Your task to perform on an android device: stop showing notifications on the lock screen Image 0: 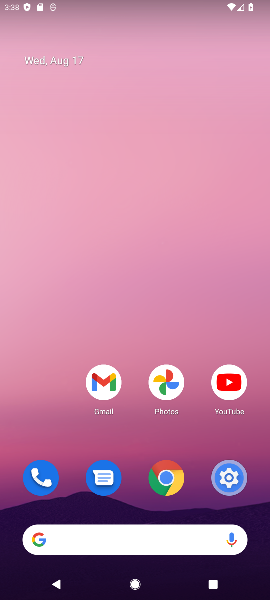
Step 0: drag from (132, 443) to (177, 20)
Your task to perform on an android device: stop showing notifications on the lock screen Image 1: 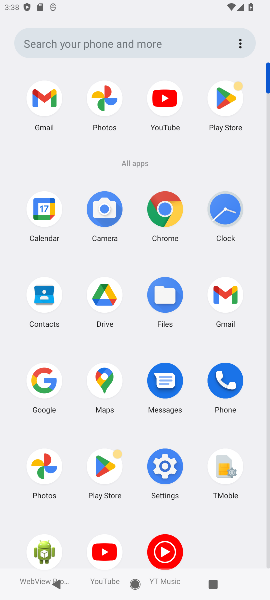
Step 1: click (162, 471)
Your task to perform on an android device: stop showing notifications on the lock screen Image 2: 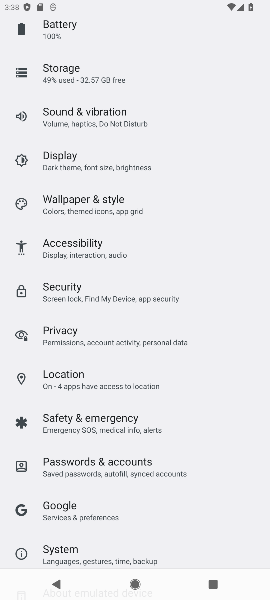
Step 2: drag from (180, 179) to (183, 343)
Your task to perform on an android device: stop showing notifications on the lock screen Image 3: 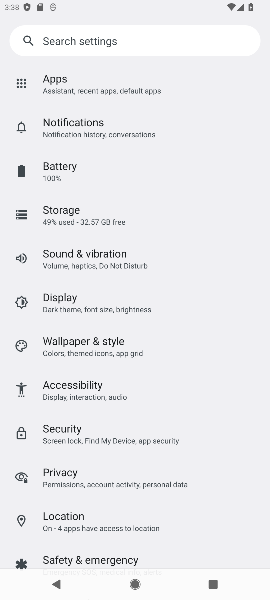
Step 3: click (117, 127)
Your task to perform on an android device: stop showing notifications on the lock screen Image 4: 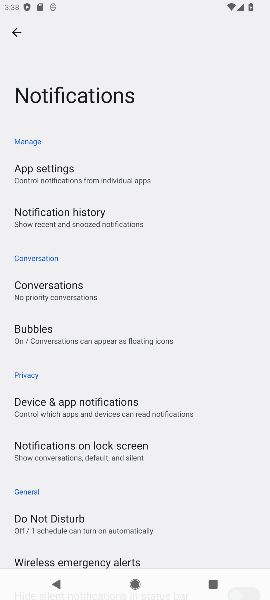
Step 4: click (42, 458)
Your task to perform on an android device: stop showing notifications on the lock screen Image 5: 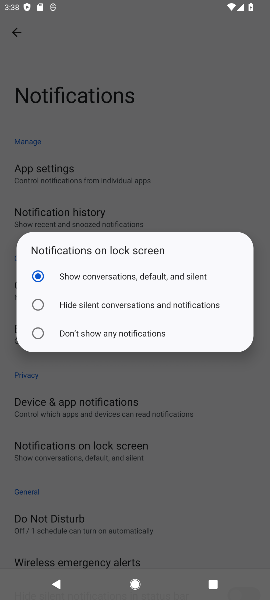
Step 5: click (104, 327)
Your task to perform on an android device: stop showing notifications on the lock screen Image 6: 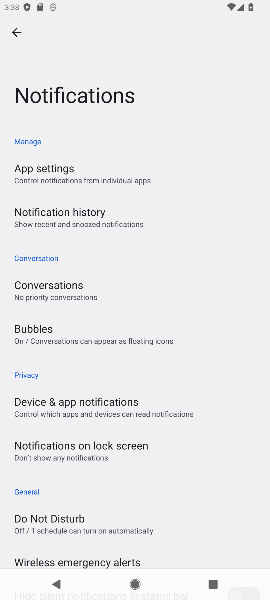
Step 6: task complete